Your task to perform on an android device: empty trash in google photos Image 0: 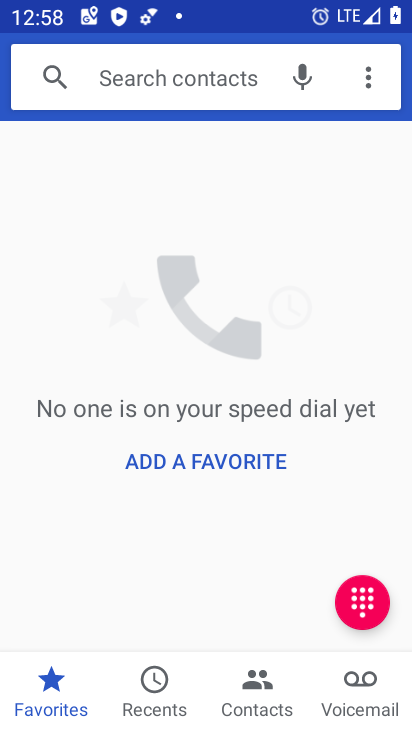
Step 0: press home button
Your task to perform on an android device: empty trash in google photos Image 1: 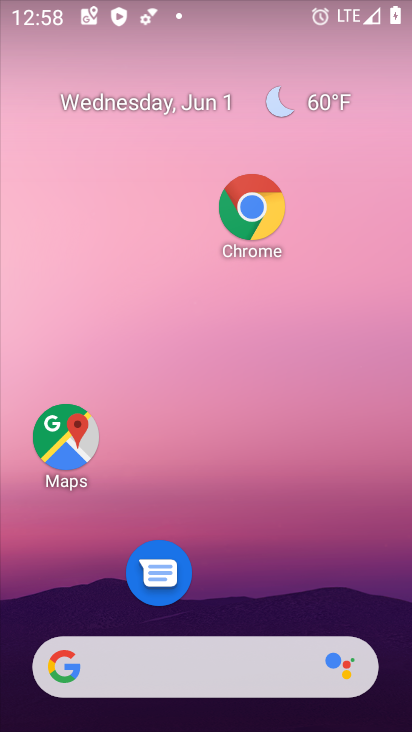
Step 1: drag from (219, 594) to (195, 189)
Your task to perform on an android device: empty trash in google photos Image 2: 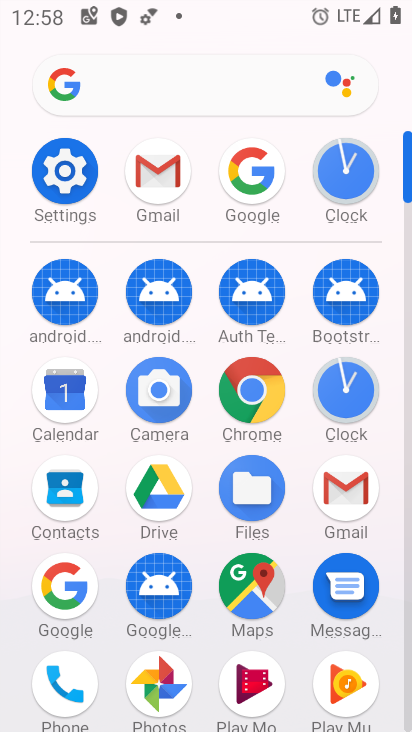
Step 2: click (165, 669)
Your task to perform on an android device: empty trash in google photos Image 3: 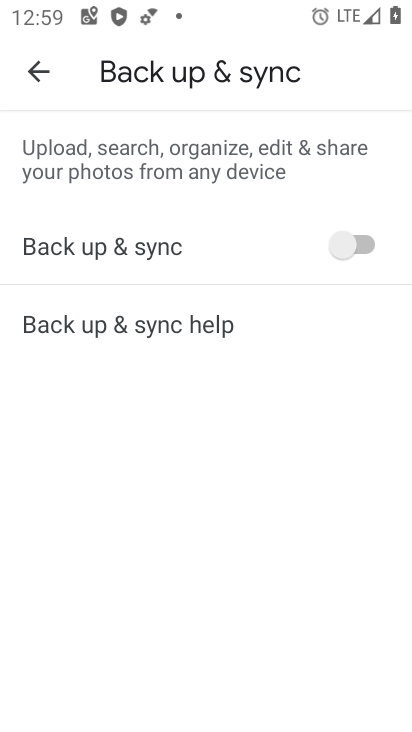
Step 3: click (35, 77)
Your task to perform on an android device: empty trash in google photos Image 4: 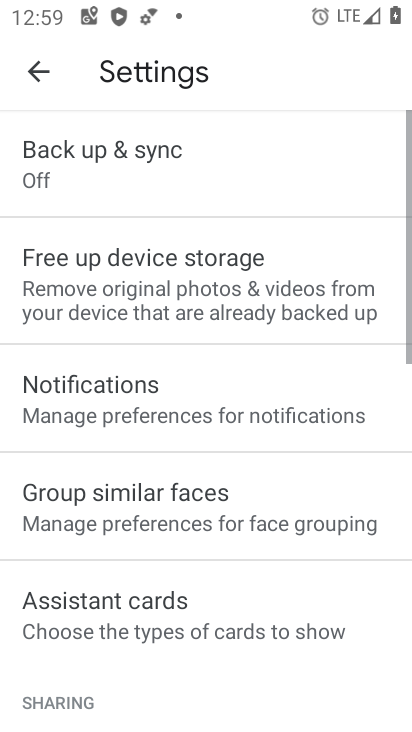
Step 4: click (35, 77)
Your task to perform on an android device: empty trash in google photos Image 5: 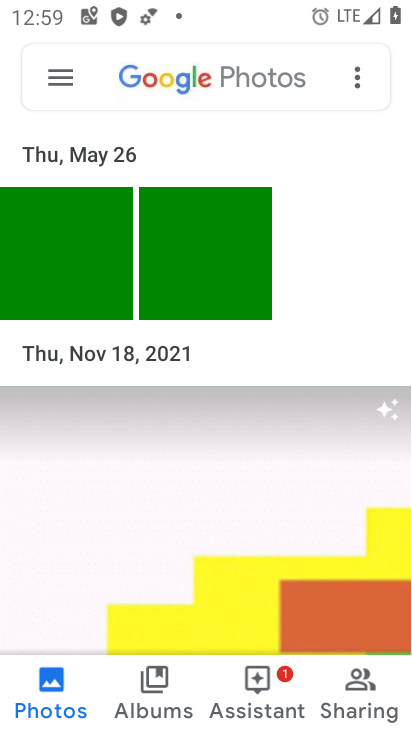
Step 5: click (43, 83)
Your task to perform on an android device: empty trash in google photos Image 6: 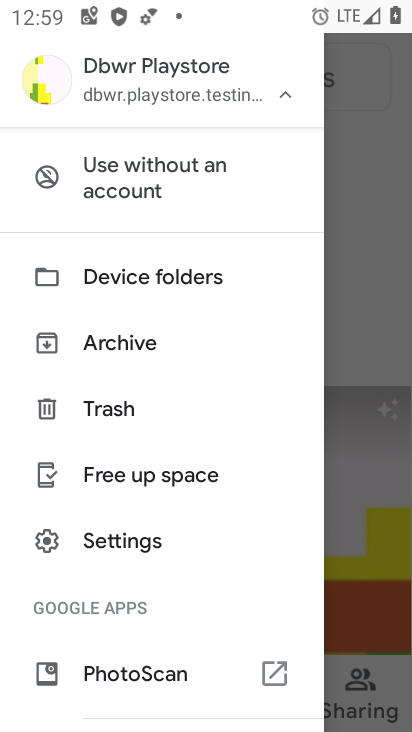
Step 6: click (107, 396)
Your task to perform on an android device: empty trash in google photos Image 7: 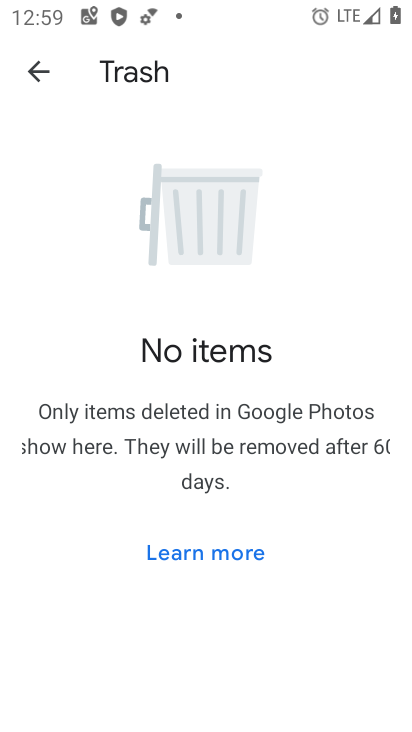
Step 7: task complete